Your task to perform on an android device: turn on priority inbox in the gmail app Image 0: 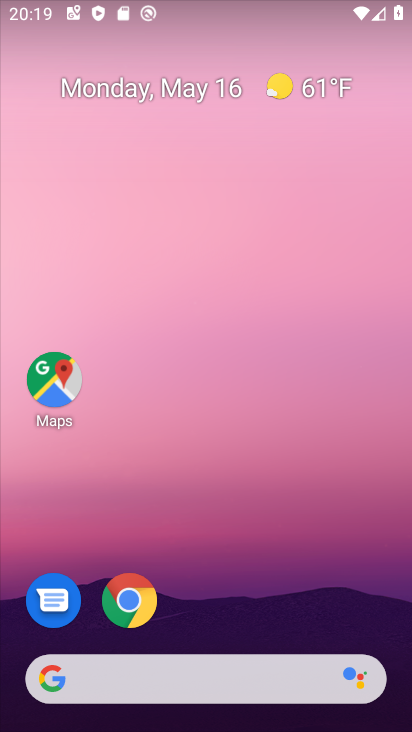
Step 0: drag from (175, 614) to (351, 12)
Your task to perform on an android device: turn on priority inbox in the gmail app Image 1: 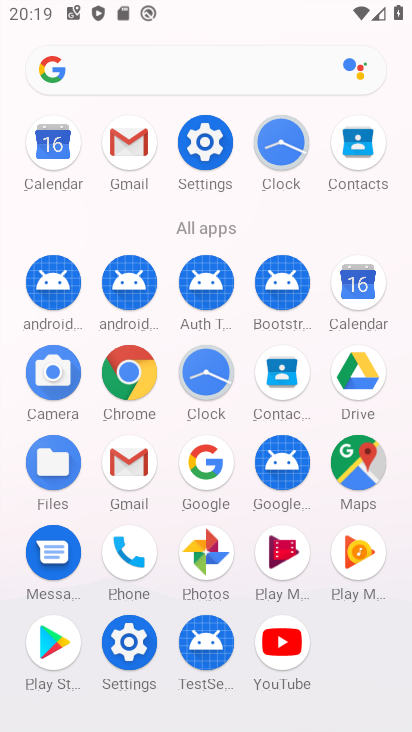
Step 1: click (149, 466)
Your task to perform on an android device: turn on priority inbox in the gmail app Image 2: 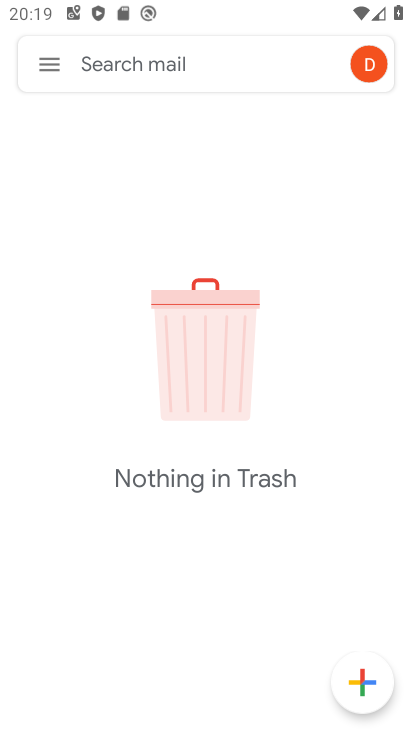
Step 2: click (57, 69)
Your task to perform on an android device: turn on priority inbox in the gmail app Image 3: 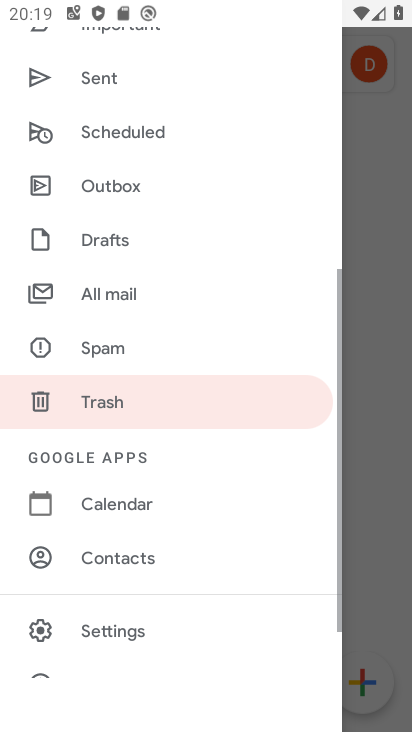
Step 3: drag from (58, 580) to (156, 264)
Your task to perform on an android device: turn on priority inbox in the gmail app Image 4: 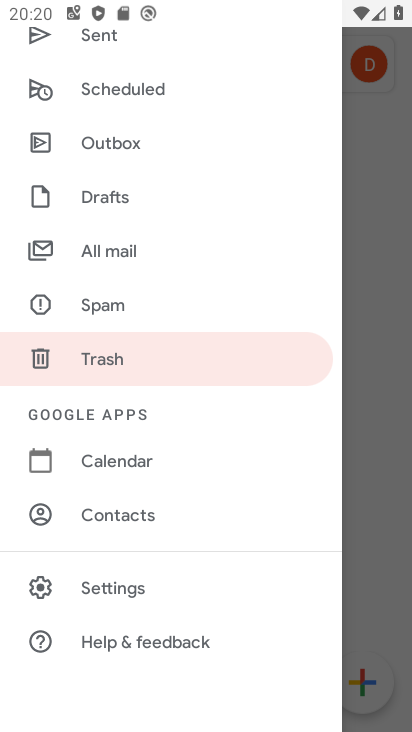
Step 4: click (254, 583)
Your task to perform on an android device: turn on priority inbox in the gmail app Image 5: 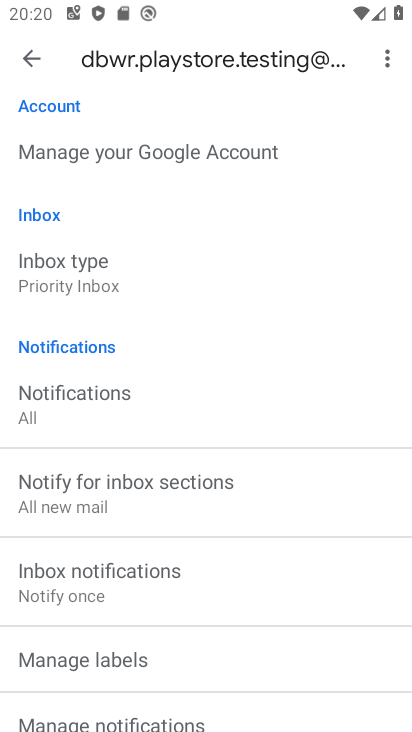
Step 5: task complete